Your task to perform on an android device: Go to notification settings Image 0: 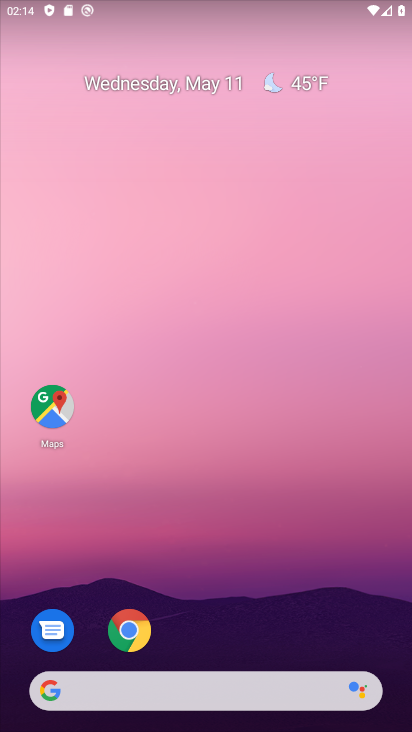
Step 0: drag from (206, 729) to (201, 86)
Your task to perform on an android device: Go to notification settings Image 1: 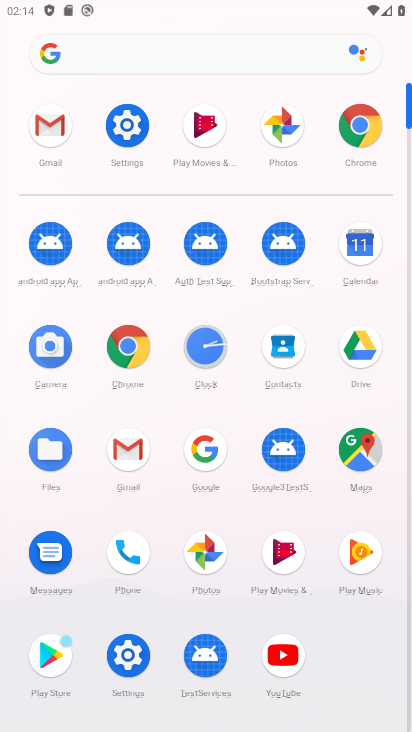
Step 1: click (125, 125)
Your task to perform on an android device: Go to notification settings Image 2: 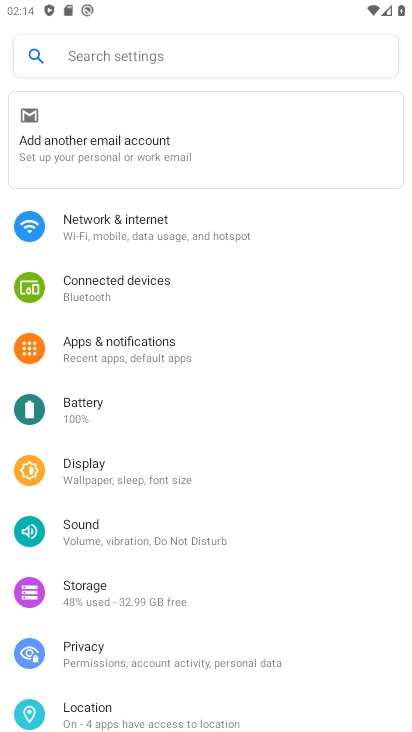
Step 2: click (137, 337)
Your task to perform on an android device: Go to notification settings Image 3: 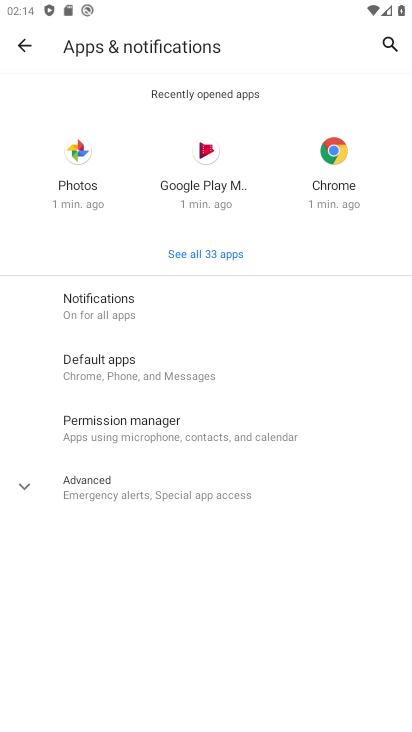
Step 3: click (112, 300)
Your task to perform on an android device: Go to notification settings Image 4: 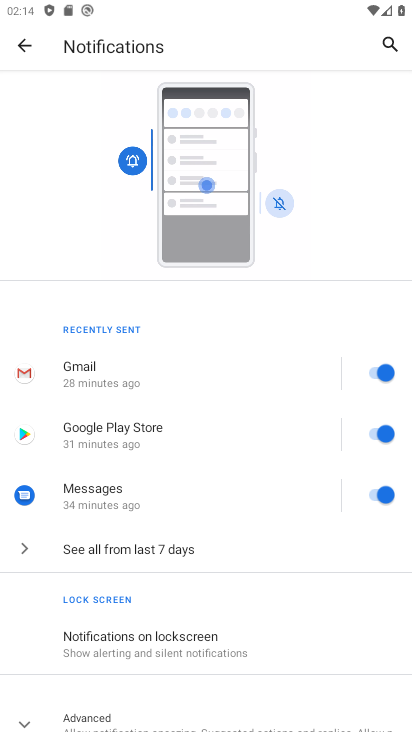
Step 4: task complete